Your task to perform on an android device: check the backup settings in the google photos Image 0: 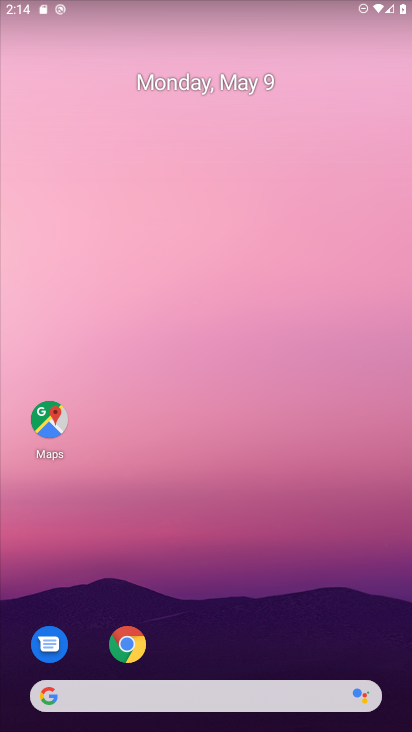
Step 0: drag from (188, 569) to (237, 84)
Your task to perform on an android device: check the backup settings in the google photos Image 1: 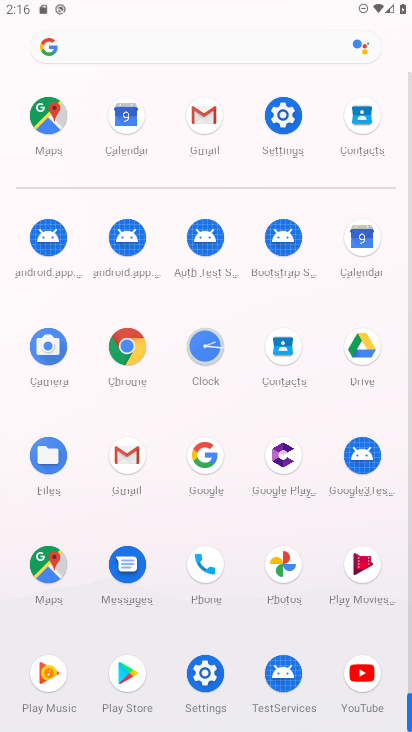
Step 1: click (279, 582)
Your task to perform on an android device: check the backup settings in the google photos Image 2: 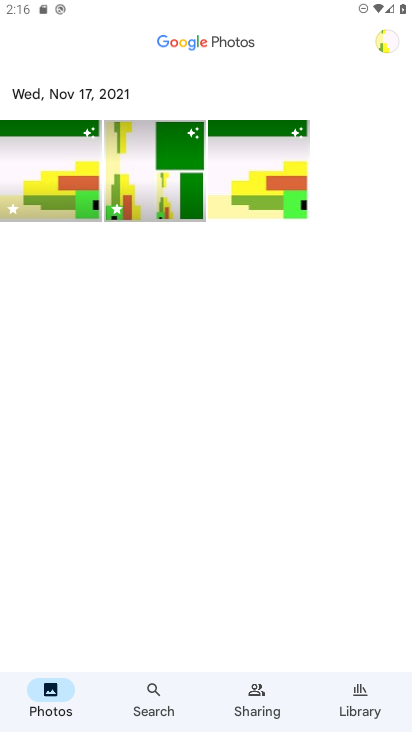
Step 2: drag from (241, 521) to (221, 443)
Your task to perform on an android device: check the backup settings in the google photos Image 3: 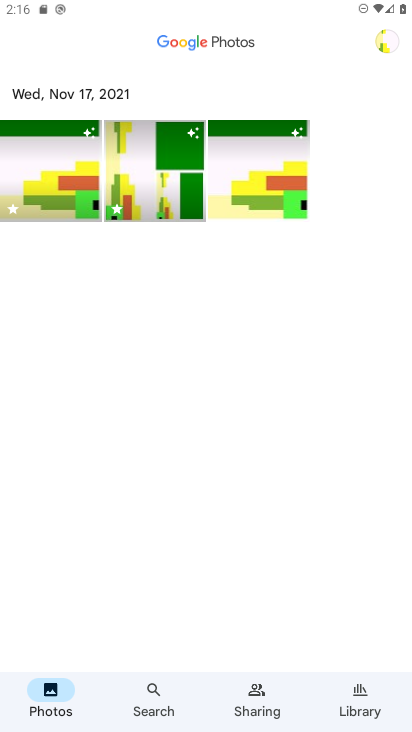
Step 3: click (378, 61)
Your task to perform on an android device: check the backup settings in the google photos Image 4: 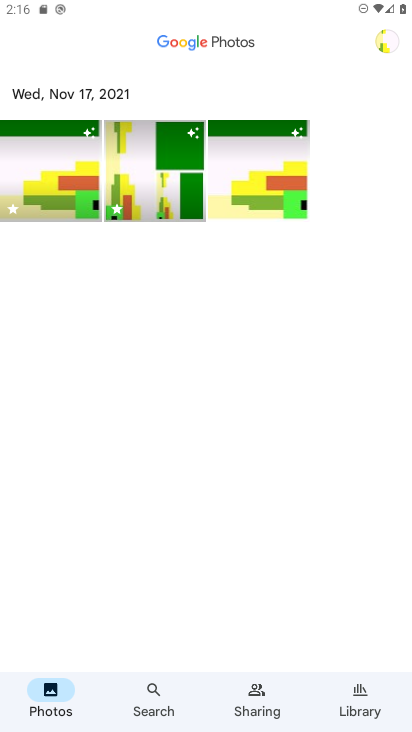
Step 4: click (388, 38)
Your task to perform on an android device: check the backup settings in the google photos Image 5: 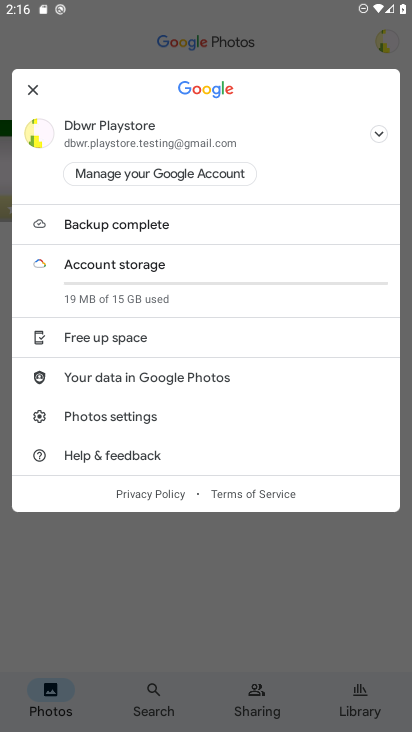
Step 5: click (98, 403)
Your task to perform on an android device: check the backup settings in the google photos Image 6: 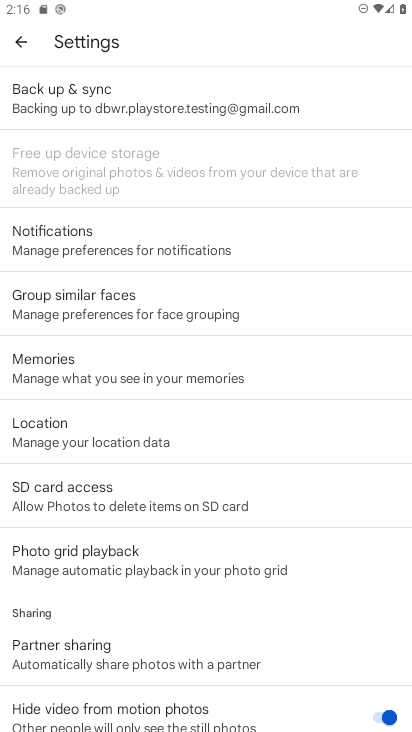
Step 6: click (129, 111)
Your task to perform on an android device: check the backup settings in the google photos Image 7: 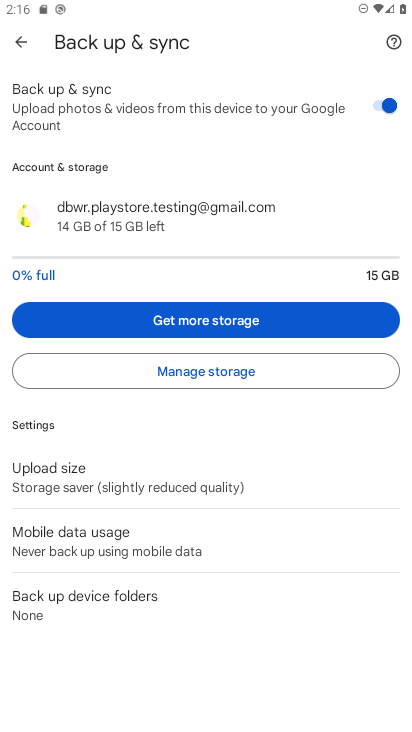
Step 7: task complete